Your task to perform on an android device: turn off improve location accuracy Image 0: 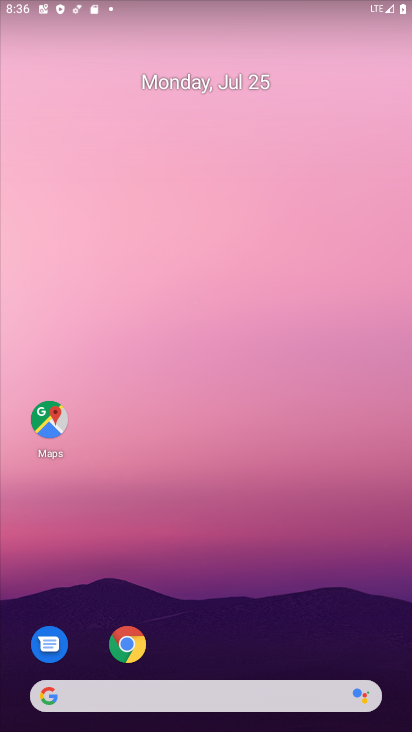
Step 0: drag from (267, 643) to (306, 219)
Your task to perform on an android device: turn off improve location accuracy Image 1: 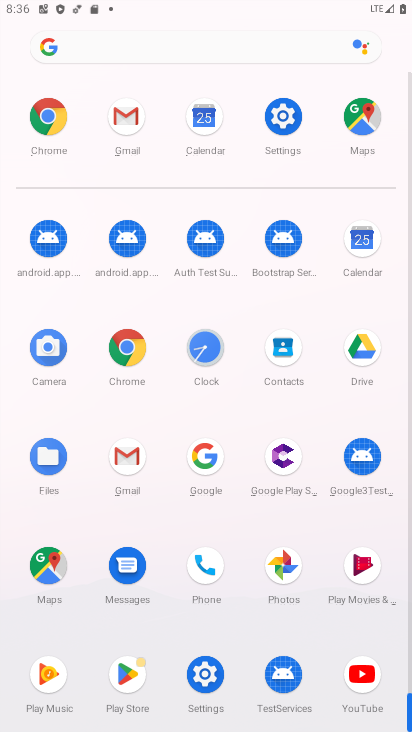
Step 1: click (203, 672)
Your task to perform on an android device: turn off improve location accuracy Image 2: 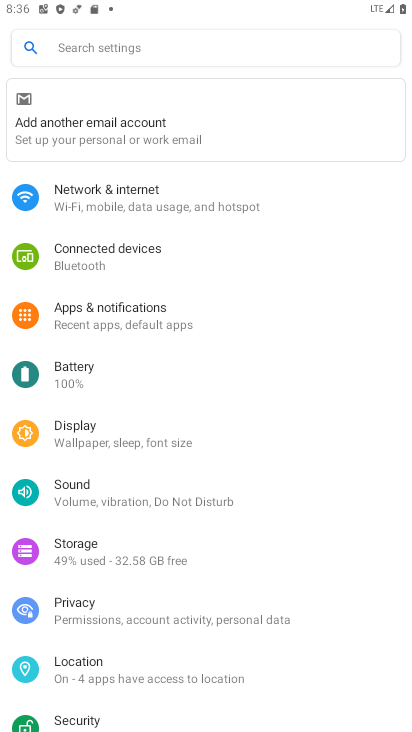
Step 2: click (158, 676)
Your task to perform on an android device: turn off improve location accuracy Image 3: 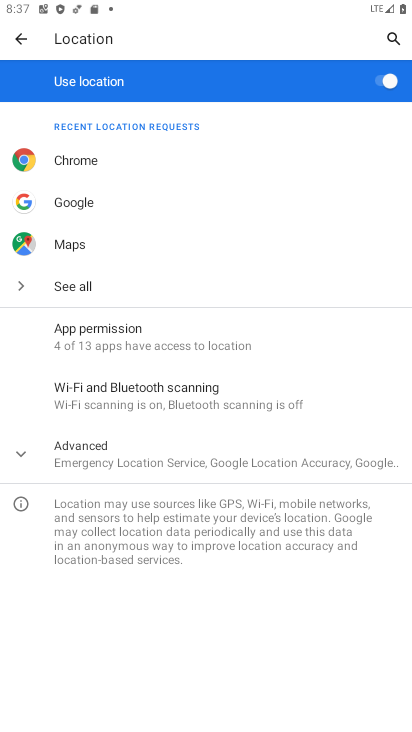
Step 3: click (160, 463)
Your task to perform on an android device: turn off improve location accuracy Image 4: 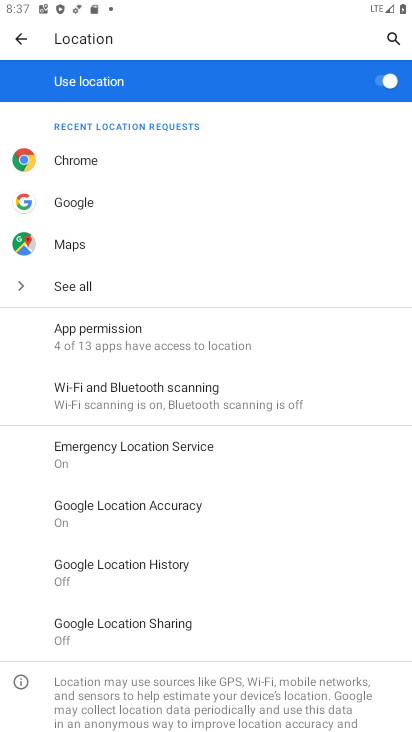
Step 4: click (177, 518)
Your task to perform on an android device: turn off improve location accuracy Image 5: 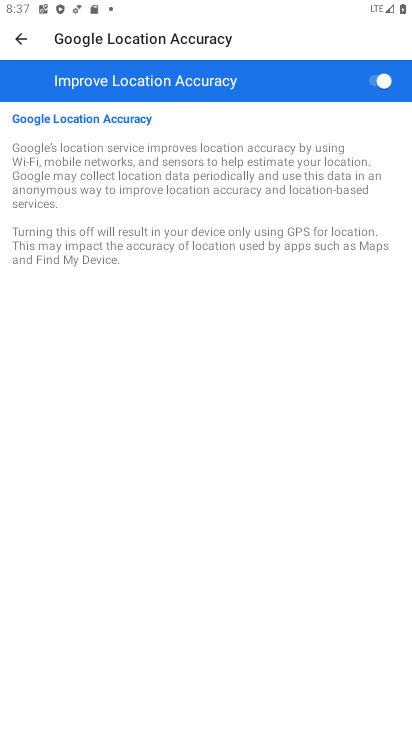
Step 5: click (388, 81)
Your task to perform on an android device: turn off improve location accuracy Image 6: 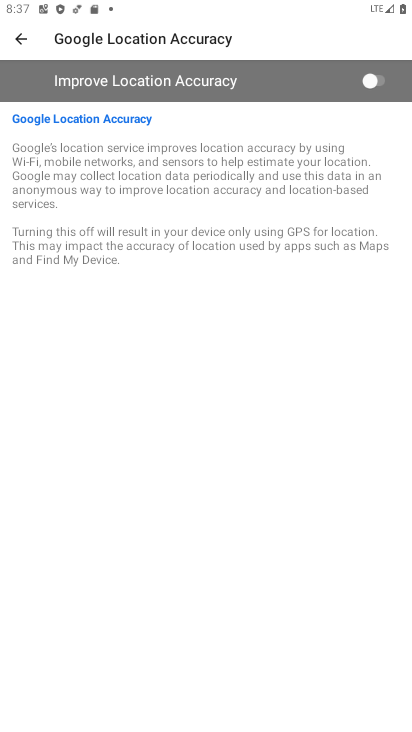
Step 6: task complete